Your task to perform on an android device: uninstall "Facebook" Image 0: 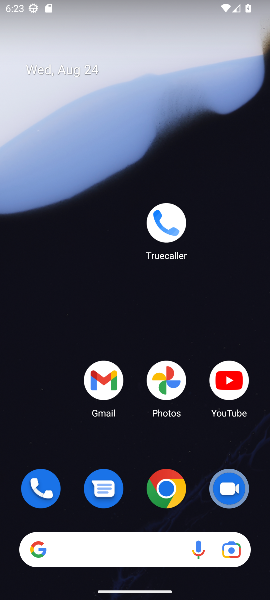
Step 0: drag from (128, 513) to (99, 37)
Your task to perform on an android device: uninstall "Facebook" Image 1: 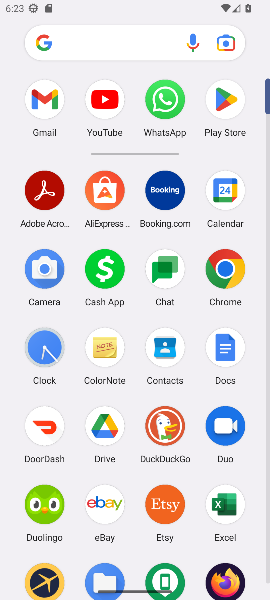
Step 1: drag from (133, 466) to (127, 216)
Your task to perform on an android device: uninstall "Facebook" Image 2: 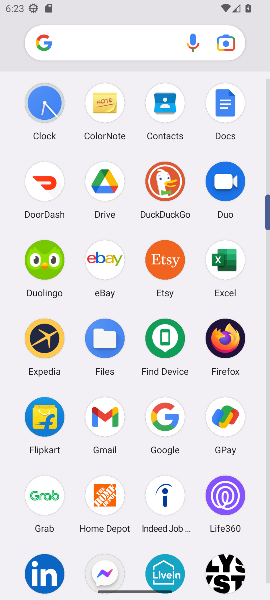
Step 2: drag from (139, 477) to (136, 278)
Your task to perform on an android device: uninstall "Facebook" Image 3: 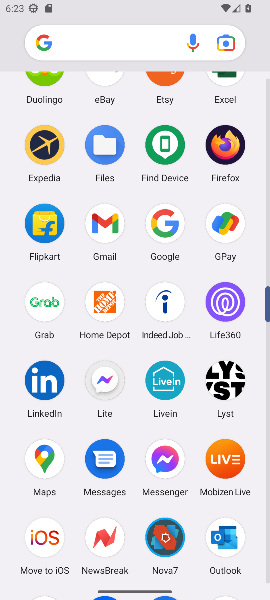
Step 3: drag from (153, 320) to (150, 533)
Your task to perform on an android device: uninstall "Facebook" Image 4: 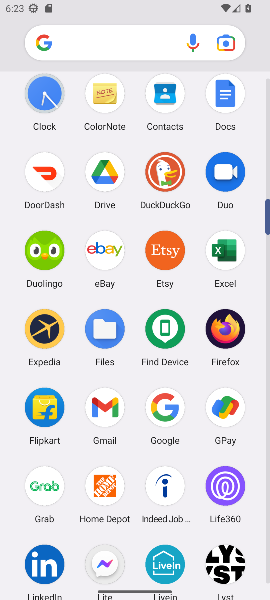
Step 4: press home button
Your task to perform on an android device: uninstall "Facebook" Image 5: 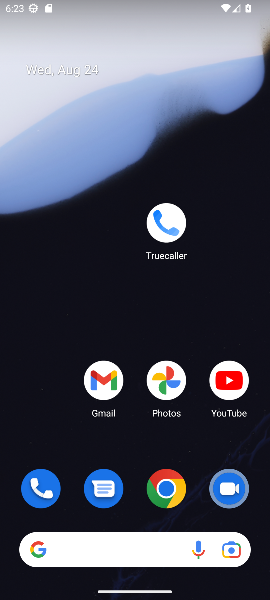
Step 5: drag from (136, 507) to (119, 24)
Your task to perform on an android device: uninstall "Facebook" Image 6: 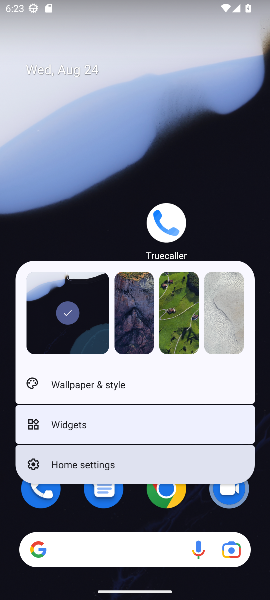
Step 6: click (187, 118)
Your task to perform on an android device: uninstall "Facebook" Image 7: 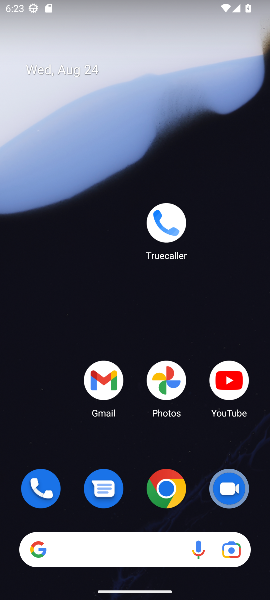
Step 7: drag from (128, 511) to (141, 125)
Your task to perform on an android device: uninstall "Facebook" Image 8: 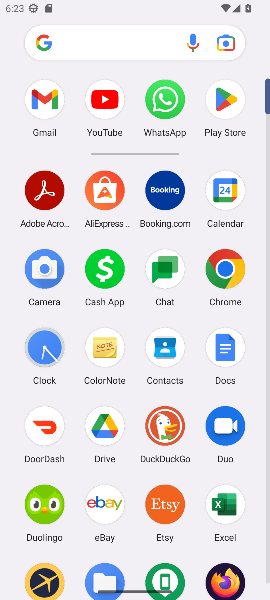
Step 8: click (212, 121)
Your task to perform on an android device: uninstall "Facebook" Image 9: 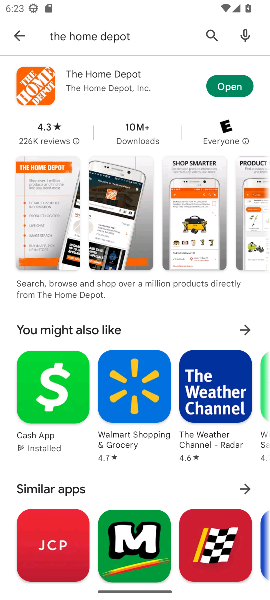
Step 9: click (211, 36)
Your task to perform on an android device: uninstall "Facebook" Image 10: 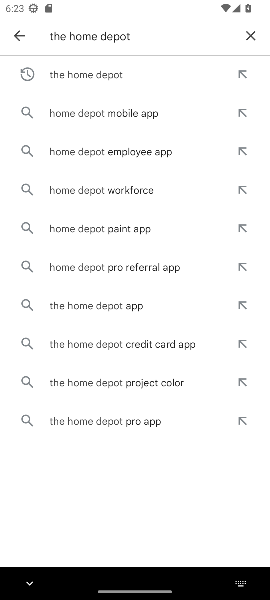
Step 10: click (253, 33)
Your task to perform on an android device: uninstall "Facebook" Image 11: 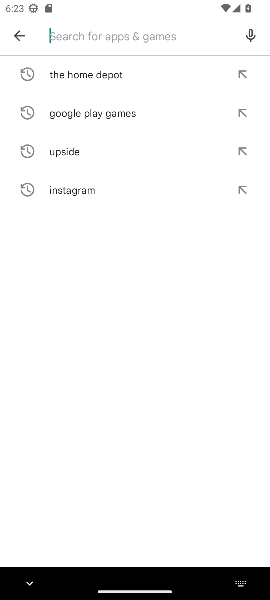
Step 11: type "facebook"
Your task to perform on an android device: uninstall "Facebook" Image 12: 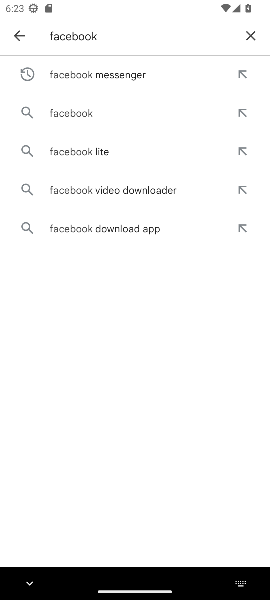
Step 12: click (184, 81)
Your task to perform on an android device: uninstall "Facebook" Image 13: 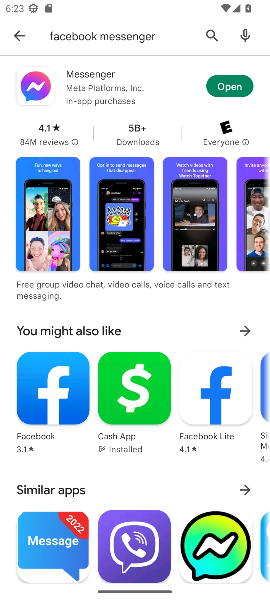
Step 13: click (212, 40)
Your task to perform on an android device: uninstall "Facebook" Image 14: 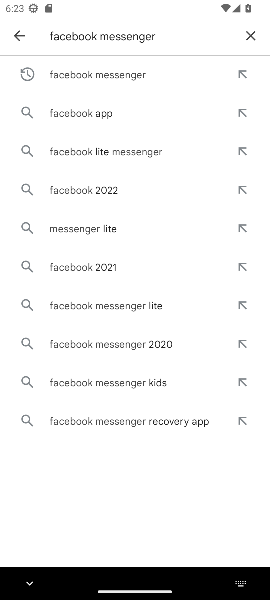
Step 14: click (248, 34)
Your task to perform on an android device: uninstall "Facebook" Image 15: 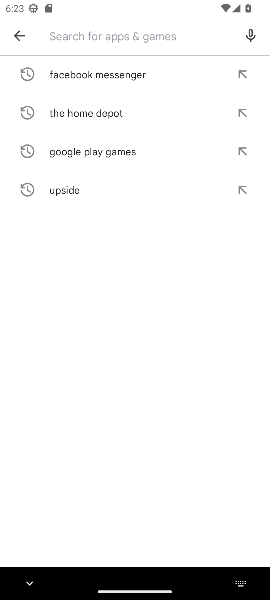
Step 15: type "facebook"
Your task to perform on an android device: uninstall "Facebook" Image 16: 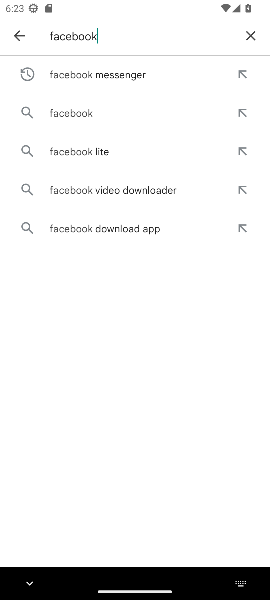
Step 16: click (104, 75)
Your task to perform on an android device: uninstall "Facebook" Image 17: 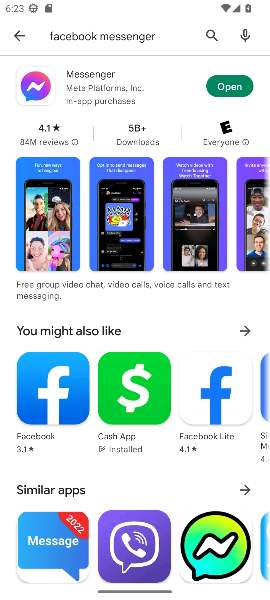
Step 17: click (250, 93)
Your task to perform on an android device: uninstall "Facebook" Image 18: 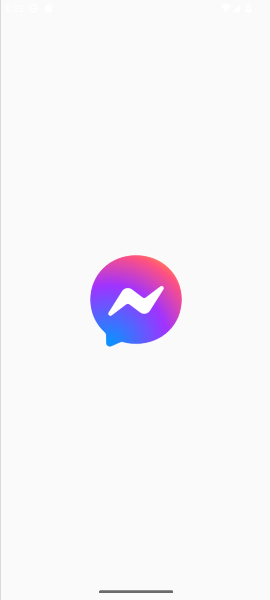
Step 18: task complete